Your task to perform on an android device: Open Chrome and go to settings Image 0: 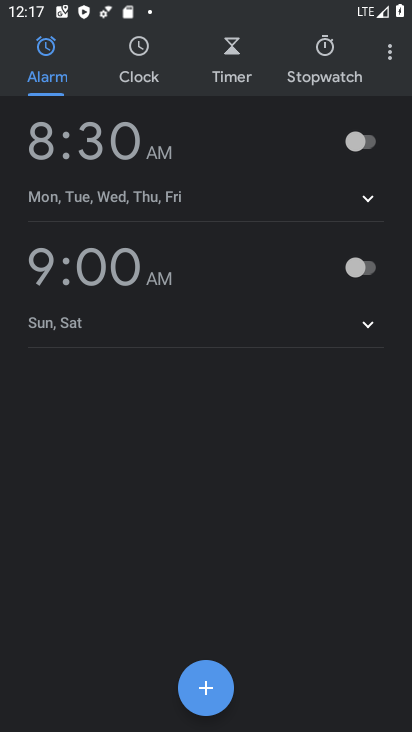
Step 0: press home button
Your task to perform on an android device: Open Chrome and go to settings Image 1: 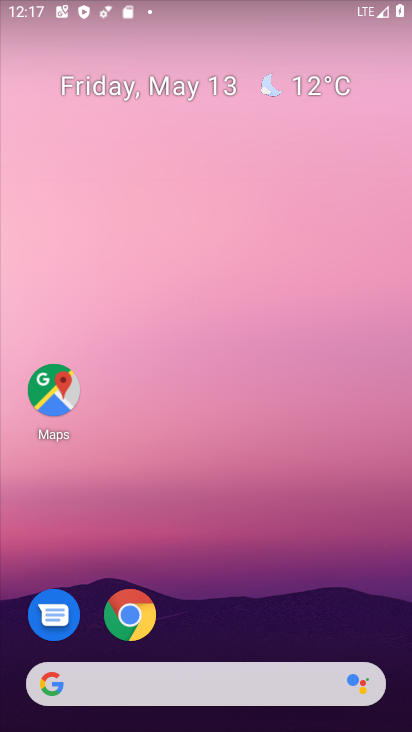
Step 1: click (130, 621)
Your task to perform on an android device: Open Chrome and go to settings Image 2: 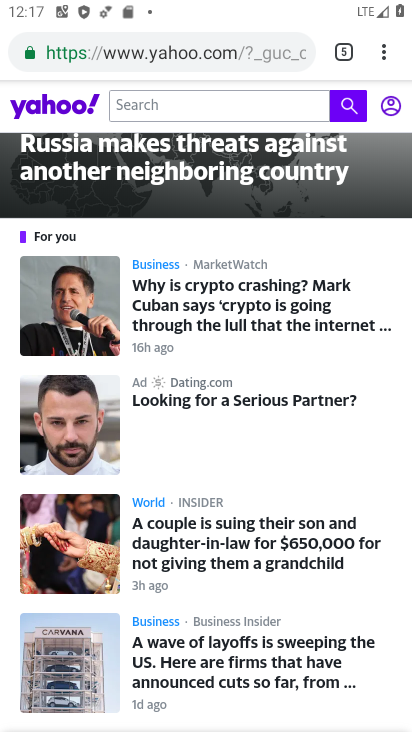
Step 2: task complete